Your task to perform on an android device: allow notifications from all sites in the chrome app Image 0: 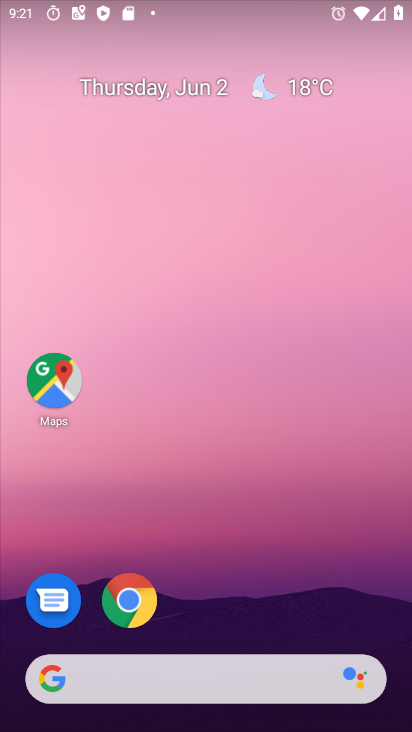
Step 0: drag from (355, 586) to (372, 197)
Your task to perform on an android device: allow notifications from all sites in the chrome app Image 1: 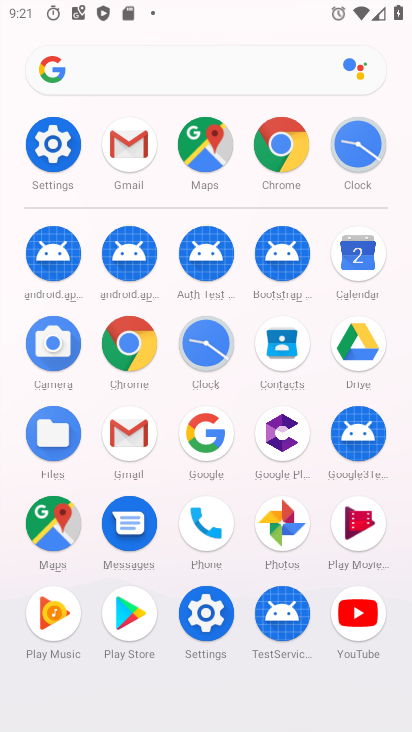
Step 1: click (149, 346)
Your task to perform on an android device: allow notifications from all sites in the chrome app Image 2: 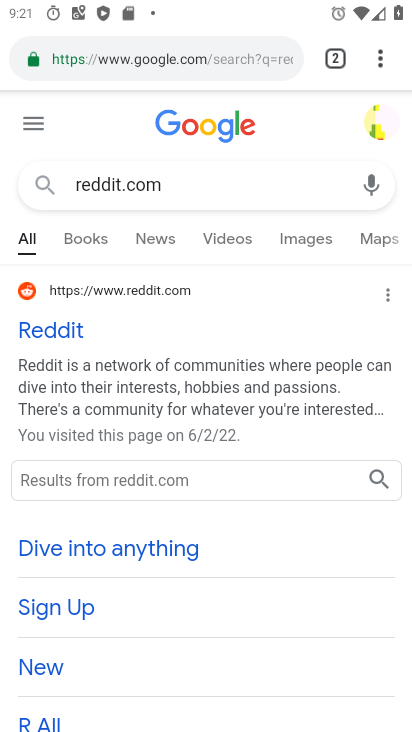
Step 2: click (378, 69)
Your task to perform on an android device: allow notifications from all sites in the chrome app Image 3: 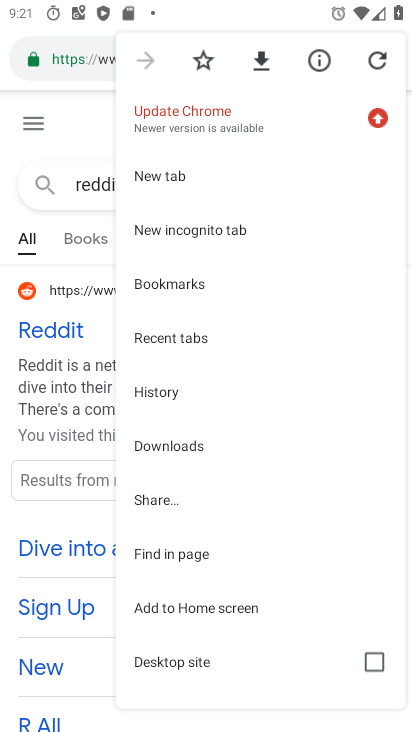
Step 3: drag from (323, 460) to (325, 358)
Your task to perform on an android device: allow notifications from all sites in the chrome app Image 4: 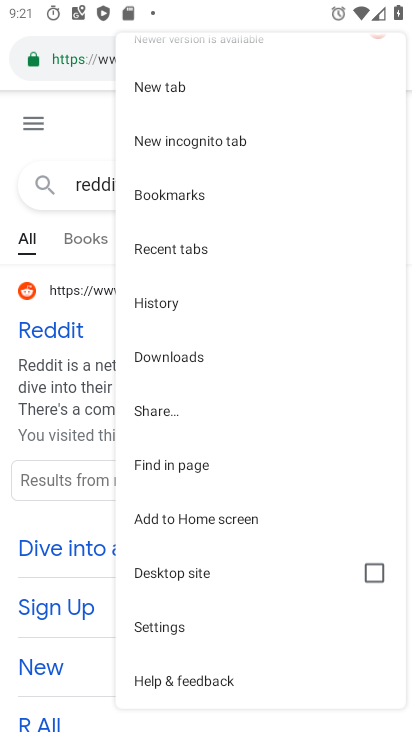
Step 4: drag from (321, 478) to (348, 318)
Your task to perform on an android device: allow notifications from all sites in the chrome app Image 5: 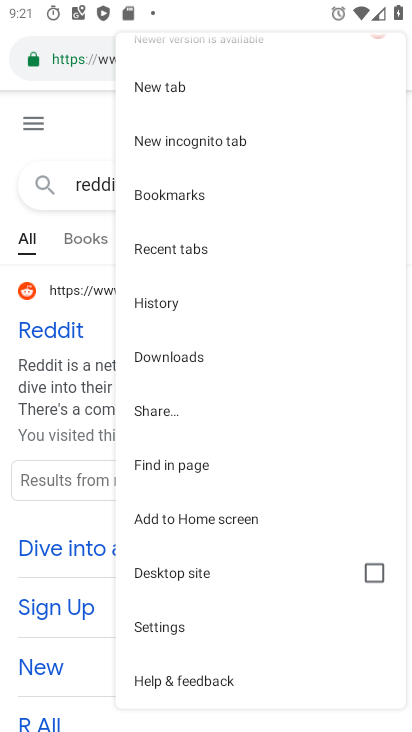
Step 5: click (192, 626)
Your task to perform on an android device: allow notifications from all sites in the chrome app Image 6: 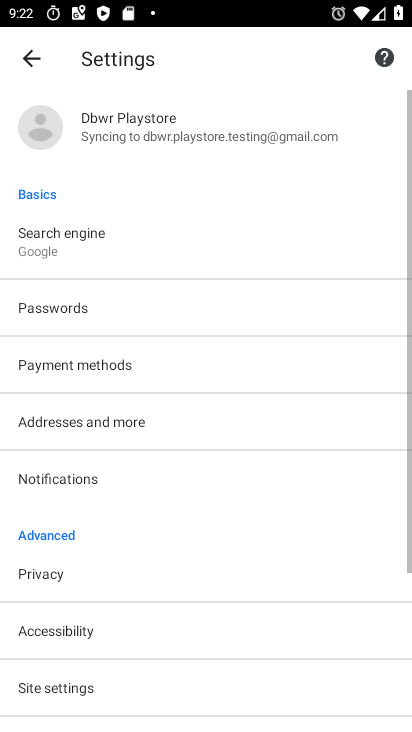
Step 6: drag from (315, 524) to (323, 419)
Your task to perform on an android device: allow notifications from all sites in the chrome app Image 7: 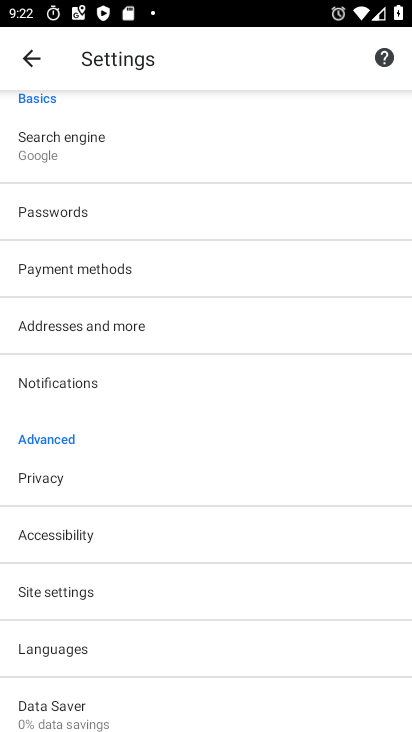
Step 7: drag from (315, 582) to (317, 466)
Your task to perform on an android device: allow notifications from all sites in the chrome app Image 8: 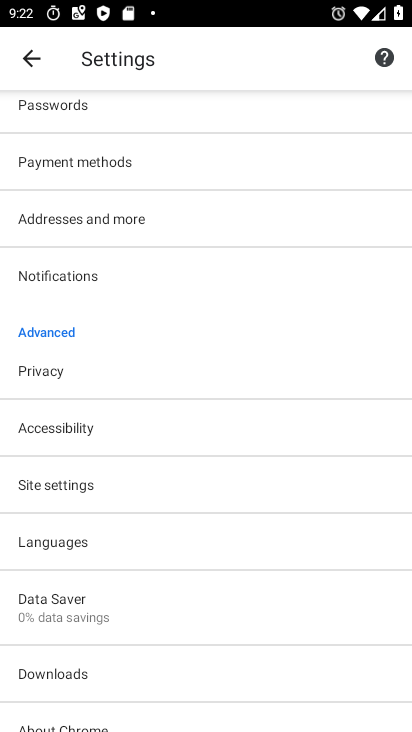
Step 8: drag from (317, 572) to (317, 439)
Your task to perform on an android device: allow notifications from all sites in the chrome app Image 9: 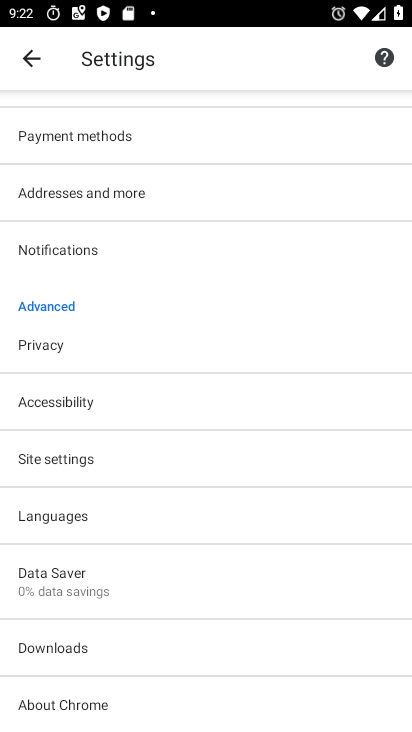
Step 9: click (296, 455)
Your task to perform on an android device: allow notifications from all sites in the chrome app Image 10: 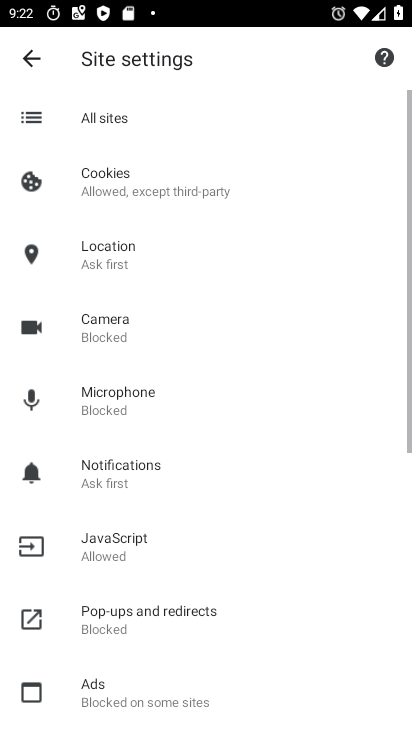
Step 10: drag from (306, 530) to (315, 421)
Your task to perform on an android device: allow notifications from all sites in the chrome app Image 11: 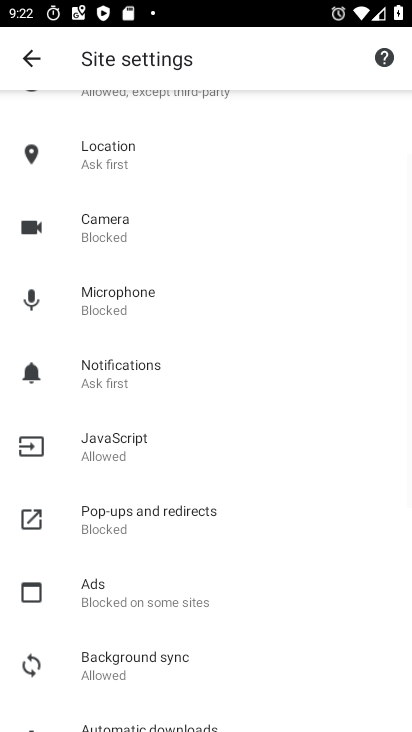
Step 11: drag from (337, 507) to (336, 369)
Your task to perform on an android device: allow notifications from all sites in the chrome app Image 12: 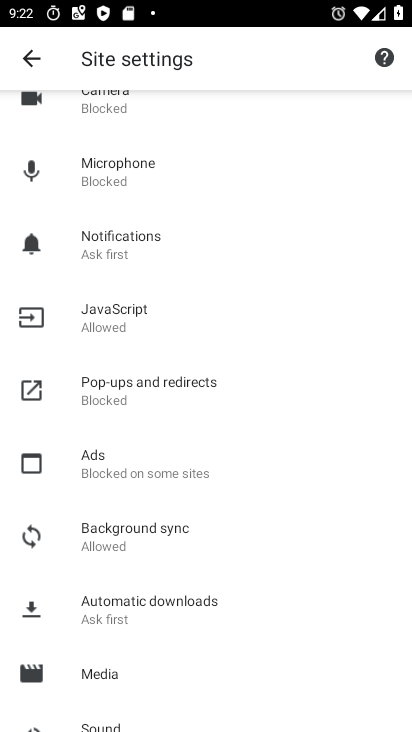
Step 12: drag from (339, 479) to (333, 368)
Your task to perform on an android device: allow notifications from all sites in the chrome app Image 13: 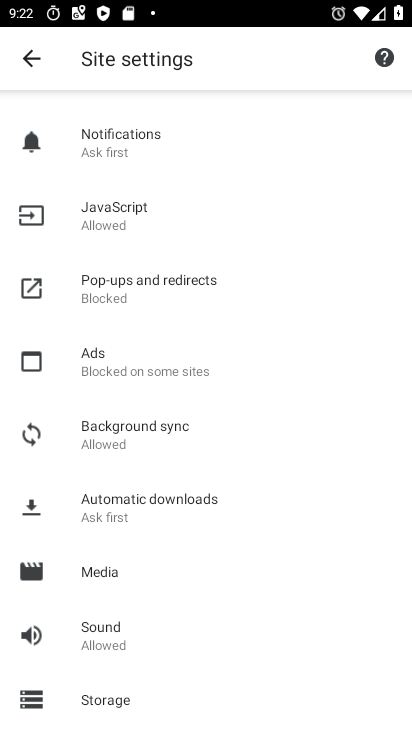
Step 13: drag from (359, 526) to (341, 336)
Your task to perform on an android device: allow notifications from all sites in the chrome app Image 14: 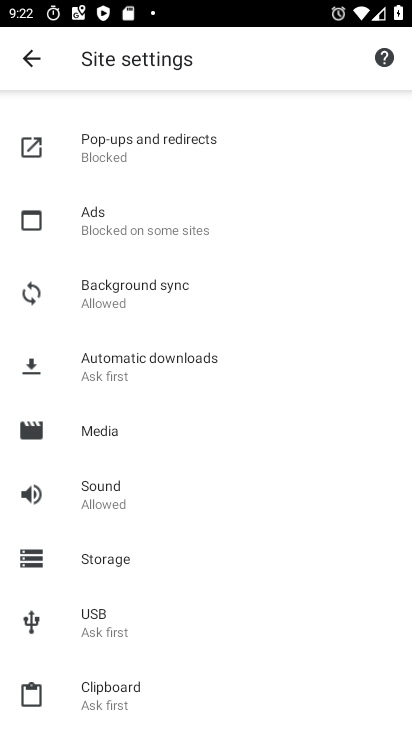
Step 14: drag from (318, 342) to (315, 464)
Your task to perform on an android device: allow notifications from all sites in the chrome app Image 15: 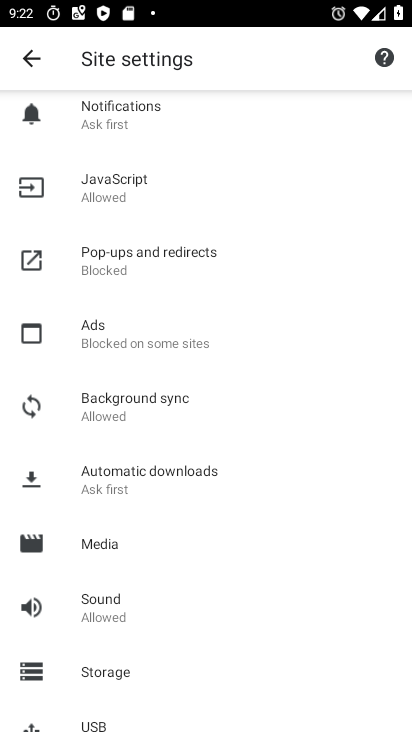
Step 15: drag from (333, 301) to (332, 411)
Your task to perform on an android device: allow notifications from all sites in the chrome app Image 16: 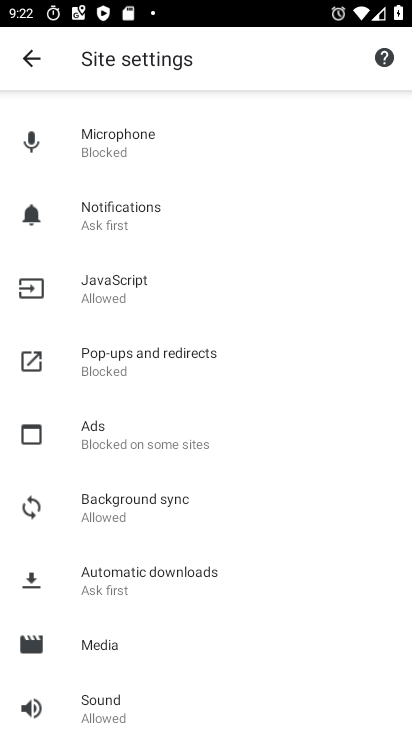
Step 16: drag from (327, 283) to (332, 425)
Your task to perform on an android device: allow notifications from all sites in the chrome app Image 17: 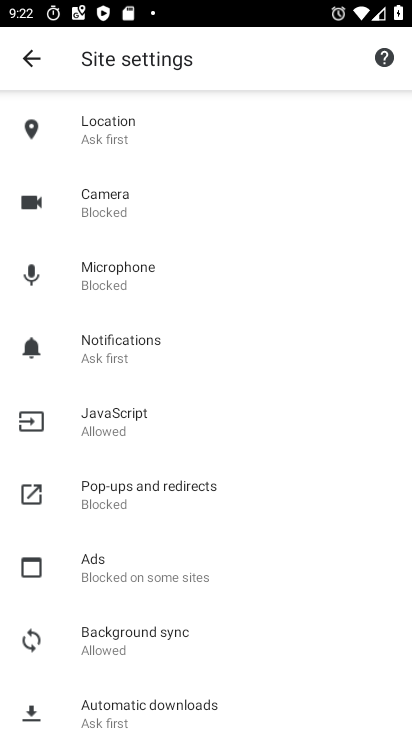
Step 17: drag from (323, 301) to (314, 456)
Your task to perform on an android device: allow notifications from all sites in the chrome app Image 18: 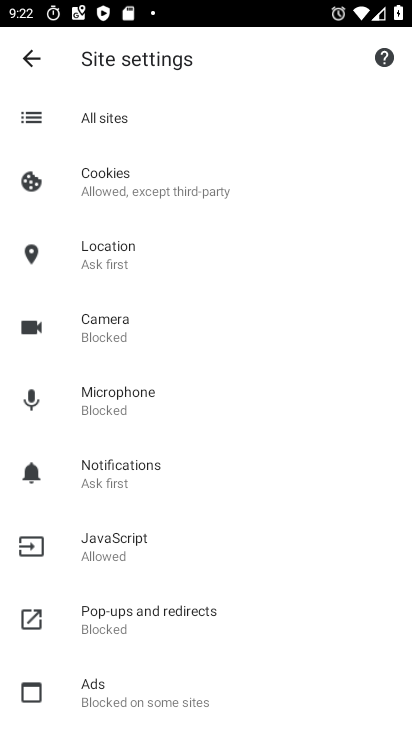
Step 18: click (140, 479)
Your task to perform on an android device: allow notifications from all sites in the chrome app Image 19: 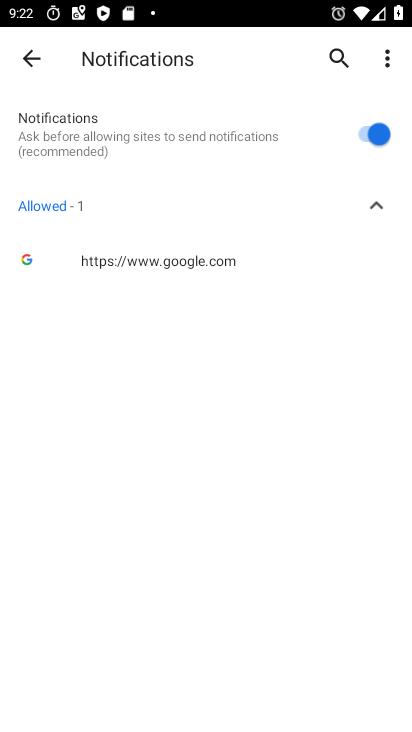
Step 19: task complete